Your task to perform on an android device: see sites visited before in the chrome app Image 0: 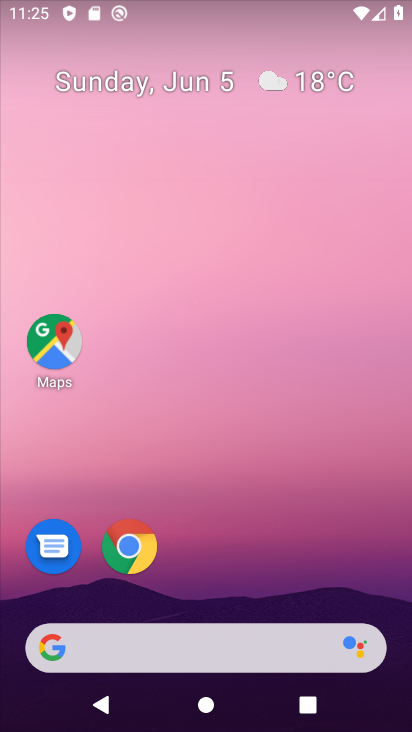
Step 0: click (128, 540)
Your task to perform on an android device: see sites visited before in the chrome app Image 1: 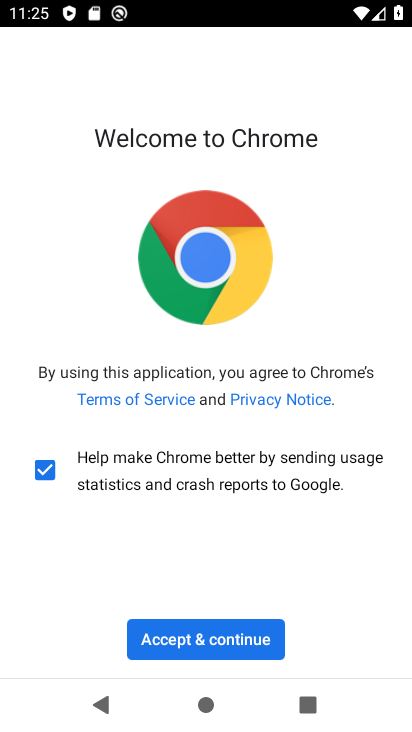
Step 1: click (191, 638)
Your task to perform on an android device: see sites visited before in the chrome app Image 2: 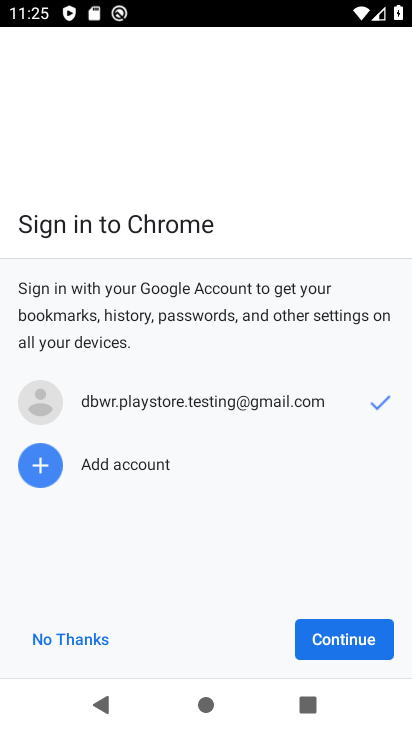
Step 2: click (362, 644)
Your task to perform on an android device: see sites visited before in the chrome app Image 3: 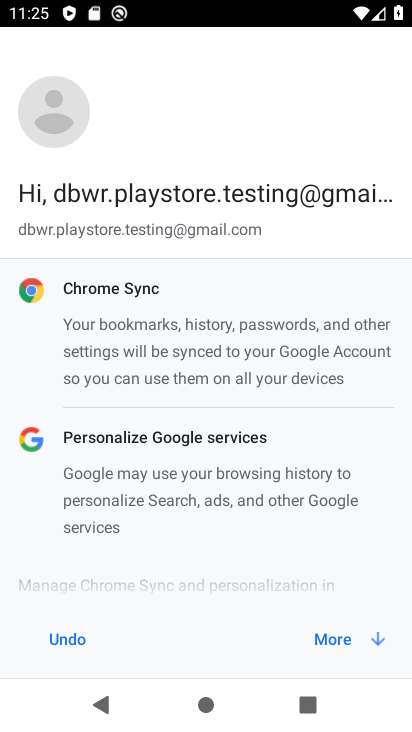
Step 3: click (331, 640)
Your task to perform on an android device: see sites visited before in the chrome app Image 4: 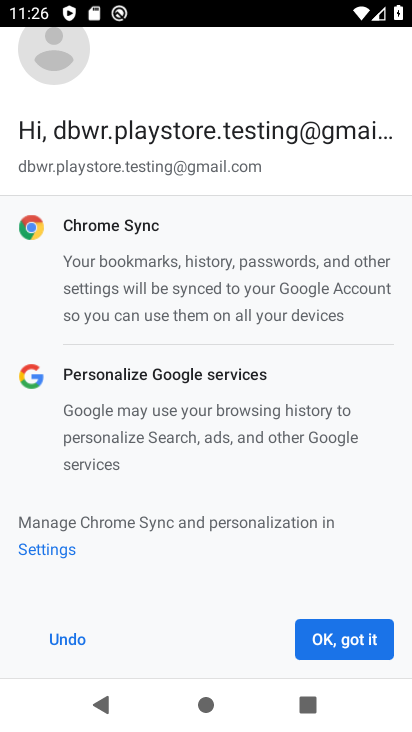
Step 4: click (358, 633)
Your task to perform on an android device: see sites visited before in the chrome app Image 5: 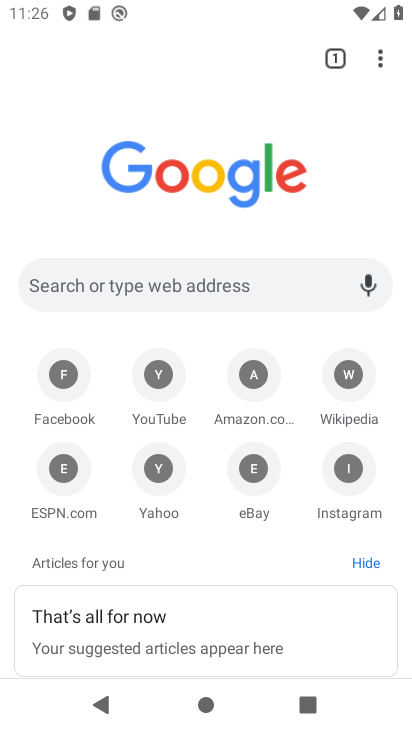
Step 5: click (379, 55)
Your task to perform on an android device: see sites visited before in the chrome app Image 6: 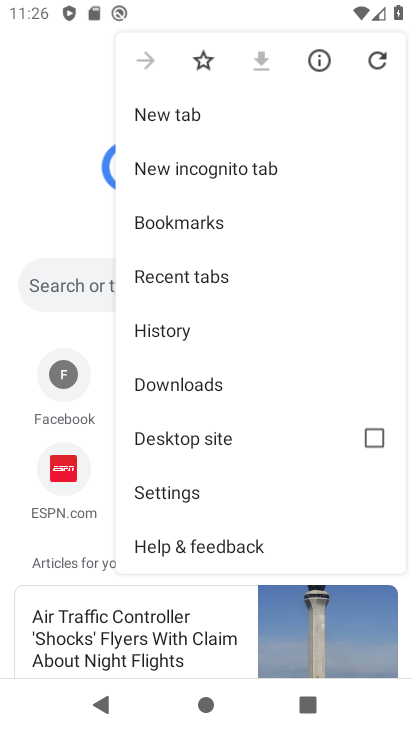
Step 6: click (181, 332)
Your task to perform on an android device: see sites visited before in the chrome app Image 7: 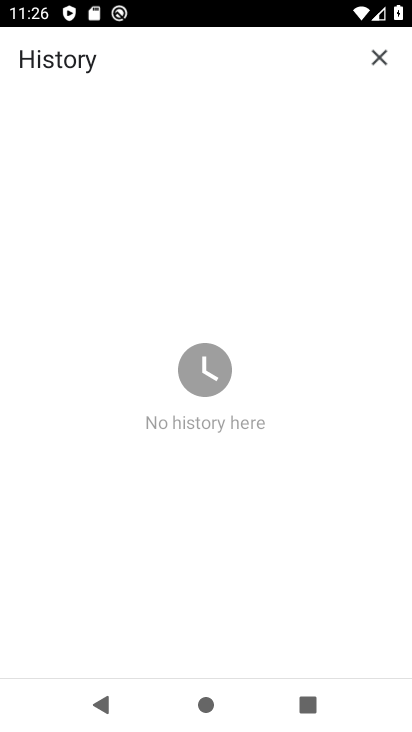
Step 7: task complete